Your task to perform on an android device: turn pop-ups on in chrome Image 0: 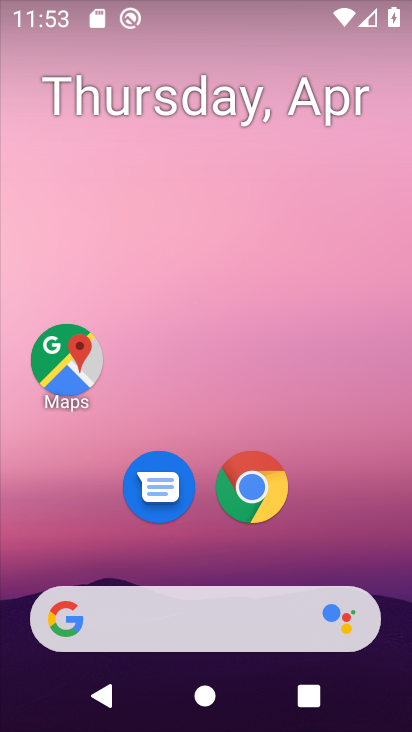
Step 0: drag from (308, 369) to (317, 214)
Your task to perform on an android device: turn pop-ups on in chrome Image 1: 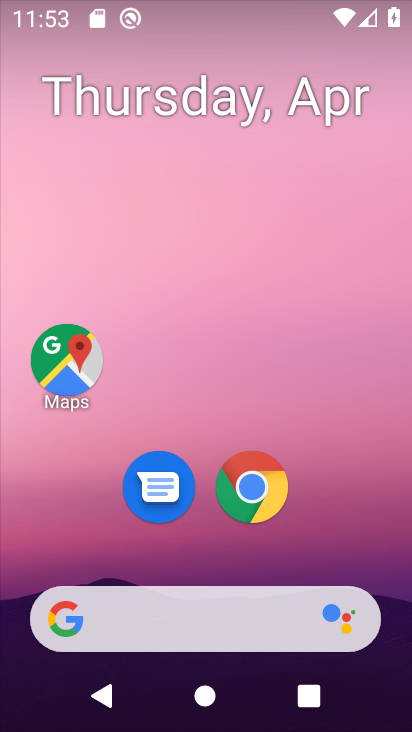
Step 1: drag from (354, 392) to (375, 190)
Your task to perform on an android device: turn pop-ups on in chrome Image 2: 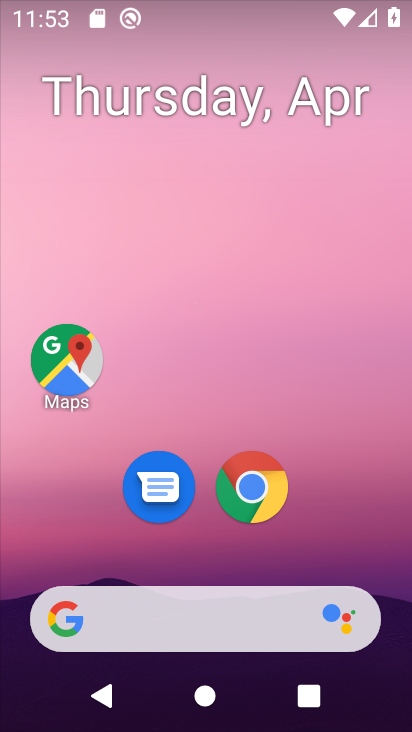
Step 2: click (247, 461)
Your task to perform on an android device: turn pop-ups on in chrome Image 3: 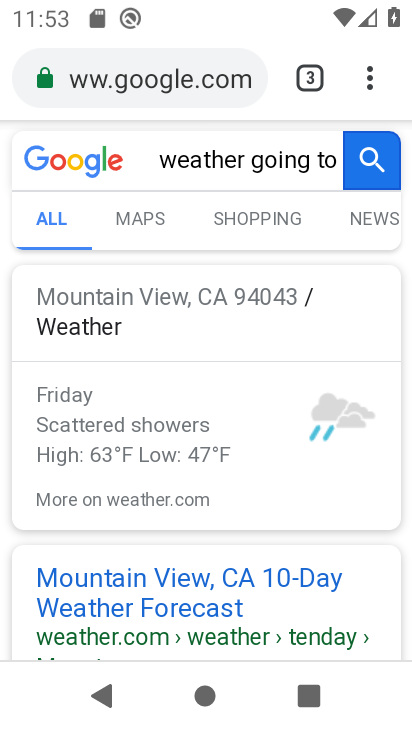
Step 3: click (359, 81)
Your task to perform on an android device: turn pop-ups on in chrome Image 4: 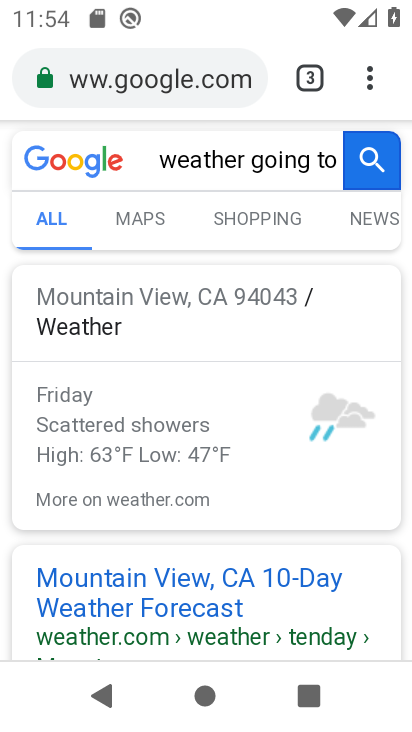
Step 4: click (359, 82)
Your task to perform on an android device: turn pop-ups on in chrome Image 5: 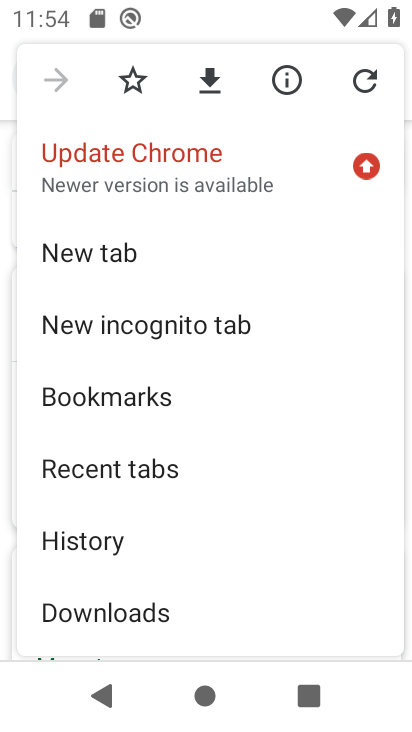
Step 5: drag from (132, 621) to (209, 245)
Your task to perform on an android device: turn pop-ups on in chrome Image 6: 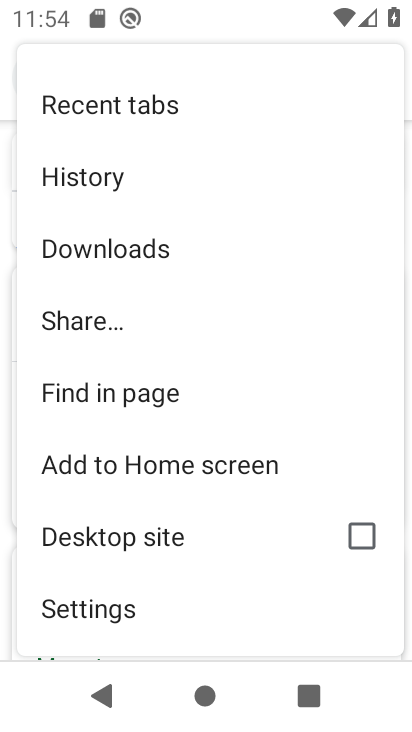
Step 6: click (207, 606)
Your task to perform on an android device: turn pop-ups on in chrome Image 7: 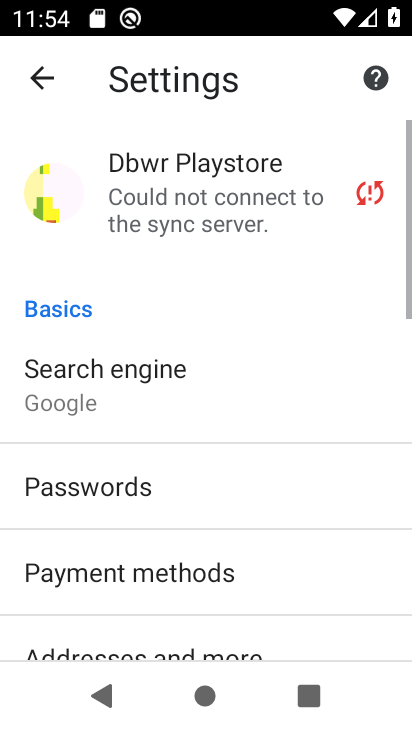
Step 7: drag from (214, 536) to (284, 109)
Your task to perform on an android device: turn pop-ups on in chrome Image 8: 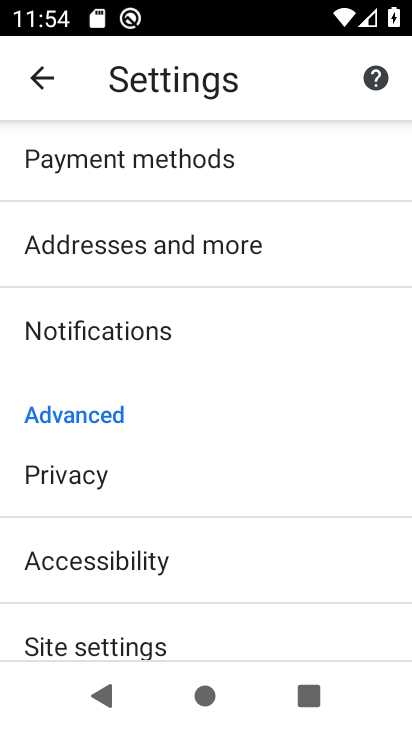
Step 8: click (142, 644)
Your task to perform on an android device: turn pop-ups on in chrome Image 9: 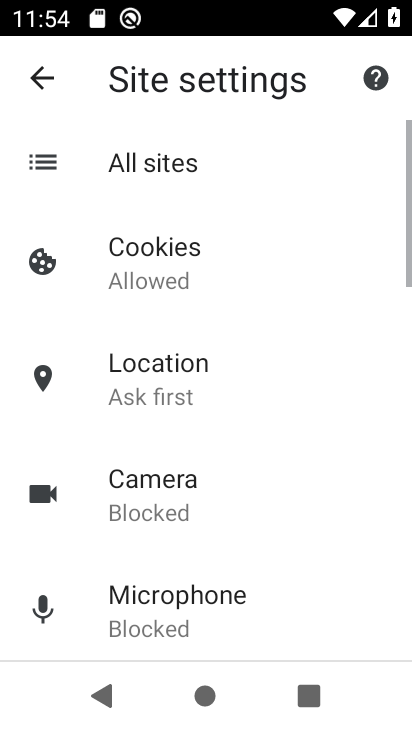
Step 9: drag from (170, 601) to (210, 186)
Your task to perform on an android device: turn pop-ups on in chrome Image 10: 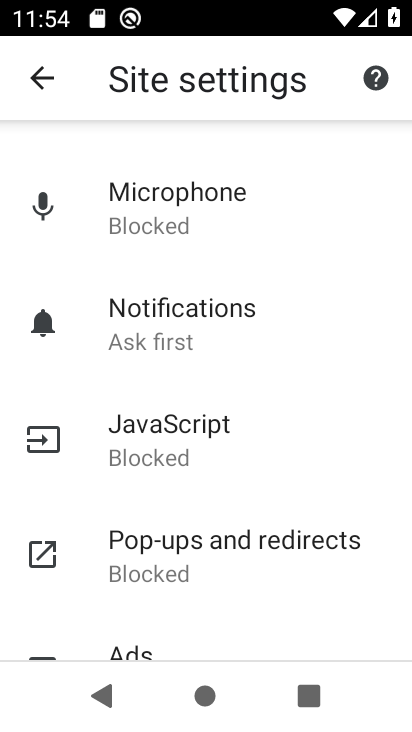
Step 10: click (191, 549)
Your task to perform on an android device: turn pop-ups on in chrome Image 11: 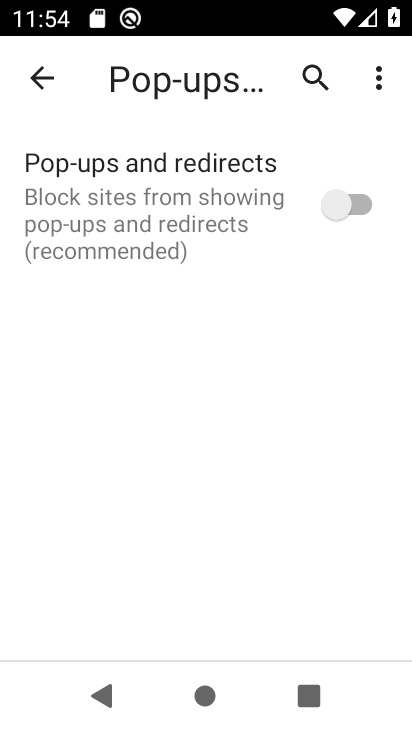
Step 11: click (349, 184)
Your task to perform on an android device: turn pop-ups on in chrome Image 12: 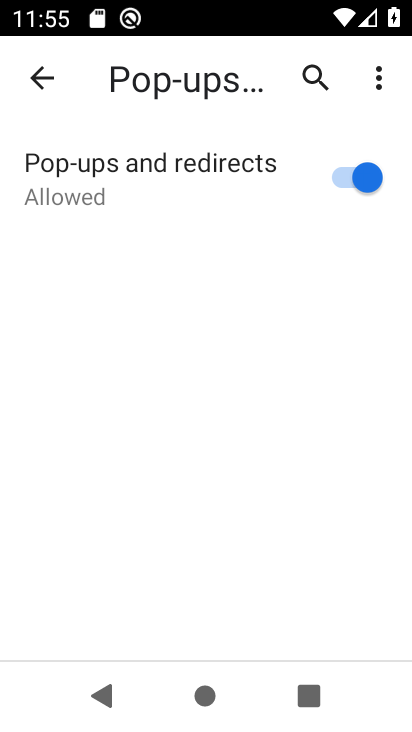
Step 12: task complete